Your task to perform on an android device: see tabs open on other devices in the chrome app Image 0: 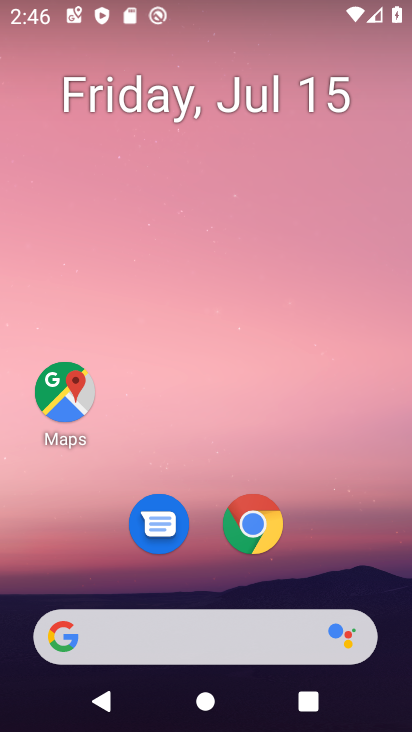
Step 0: click (248, 528)
Your task to perform on an android device: see tabs open on other devices in the chrome app Image 1: 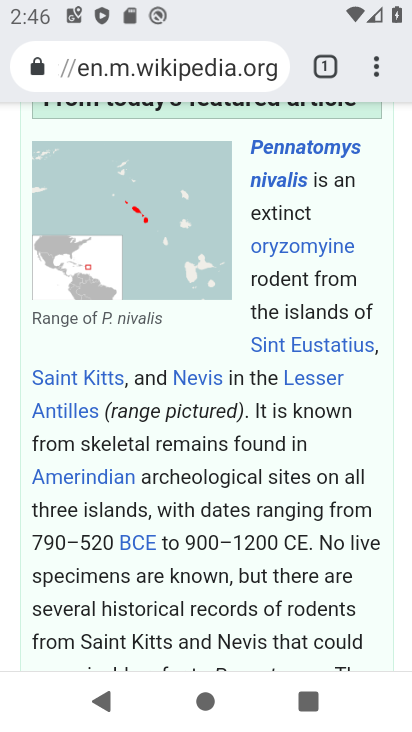
Step 1: task complete